Your task to perform on an android device: Search for Mexican restaurants on Maps Image 0: 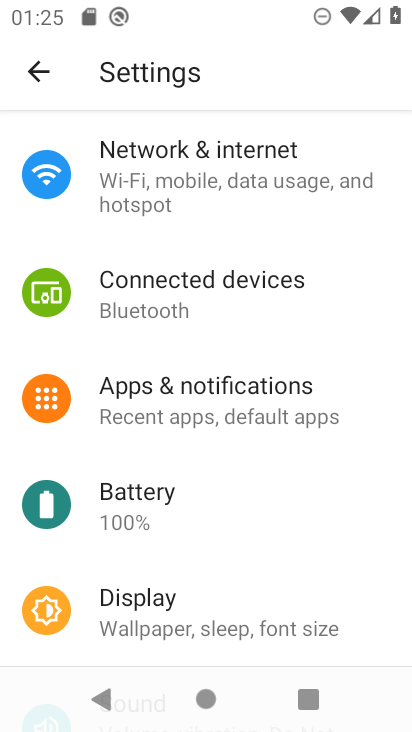
Step 0: press home button
Your task to perform on an android device: Search for Mexican restaurants on Maps Image 1: 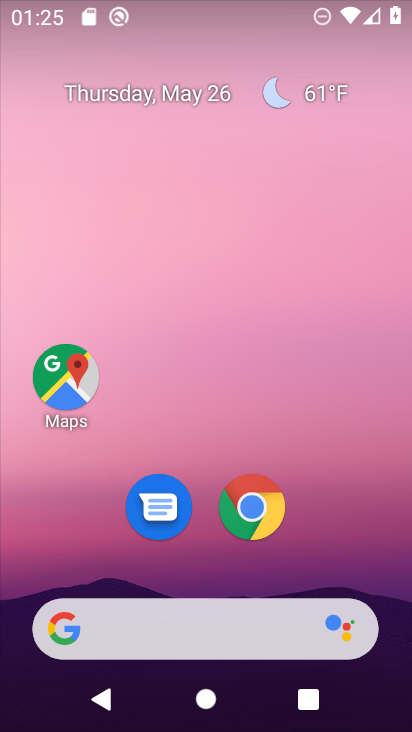
Step 1: click (41, 386)
Your task to perform on an android device: Search for Mexican restaurants on Maps Image 2: 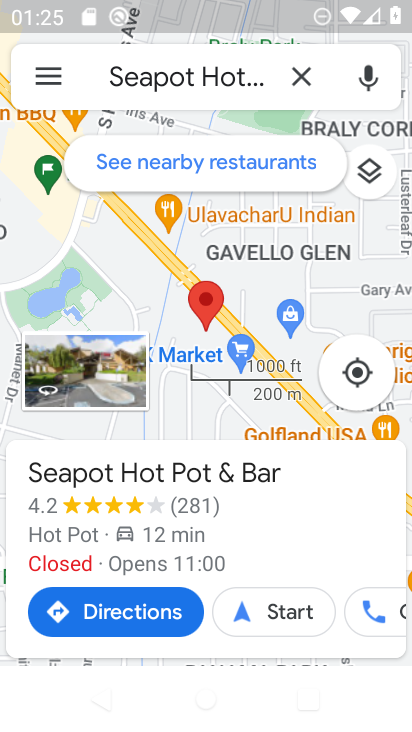
Step 2: click (290, 85)
Your task to perform on an android device: Search for Mexican restaurants on Maps Image 3: 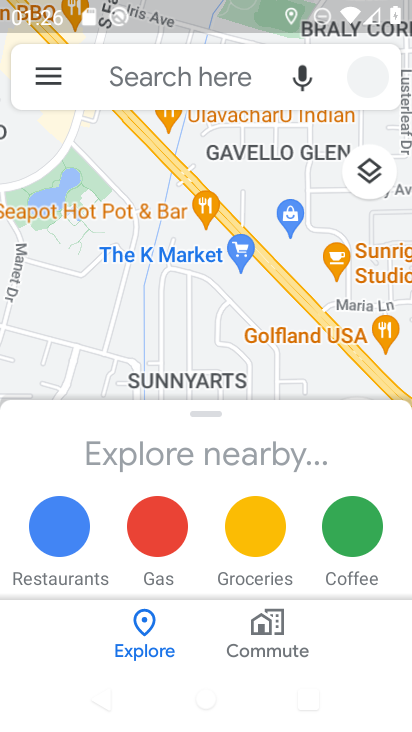
Step 3: click (192, 85)
Your task to perform on an android device: Search for Mexican restaurants on Maps Image 4: 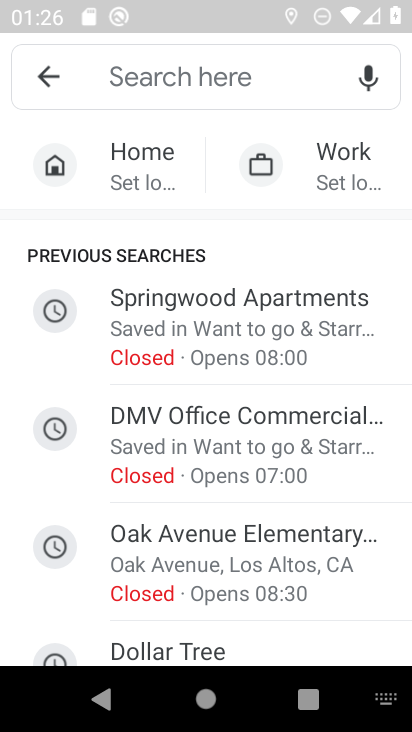
Step 4: type "mexican"
Your task to perform on an android device: Search for Mexican restaurants on Maps Image 5: 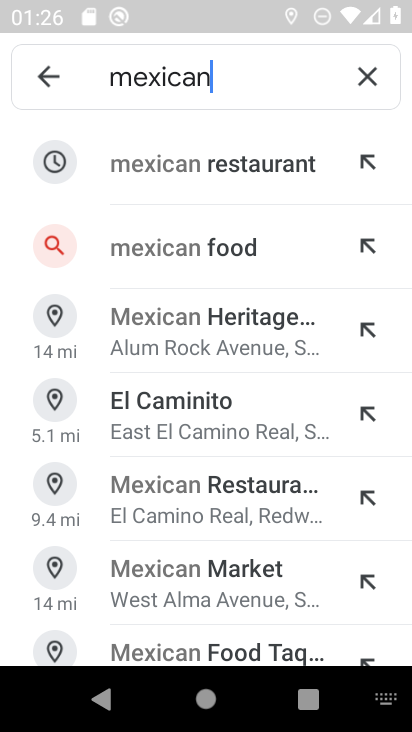
Step 5: click (199, 160)
Your task to perform on an android device: Search for Mexican restaurants on Maps Image 6: 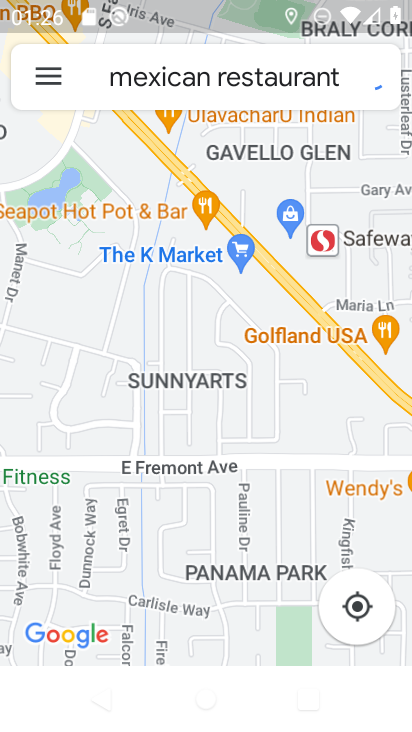
Step 6: task complete